Your task to perform on an android device: Clear the shopping cart on newegg.com. Add "dell xps" to the cart on newegg.com Image 0: 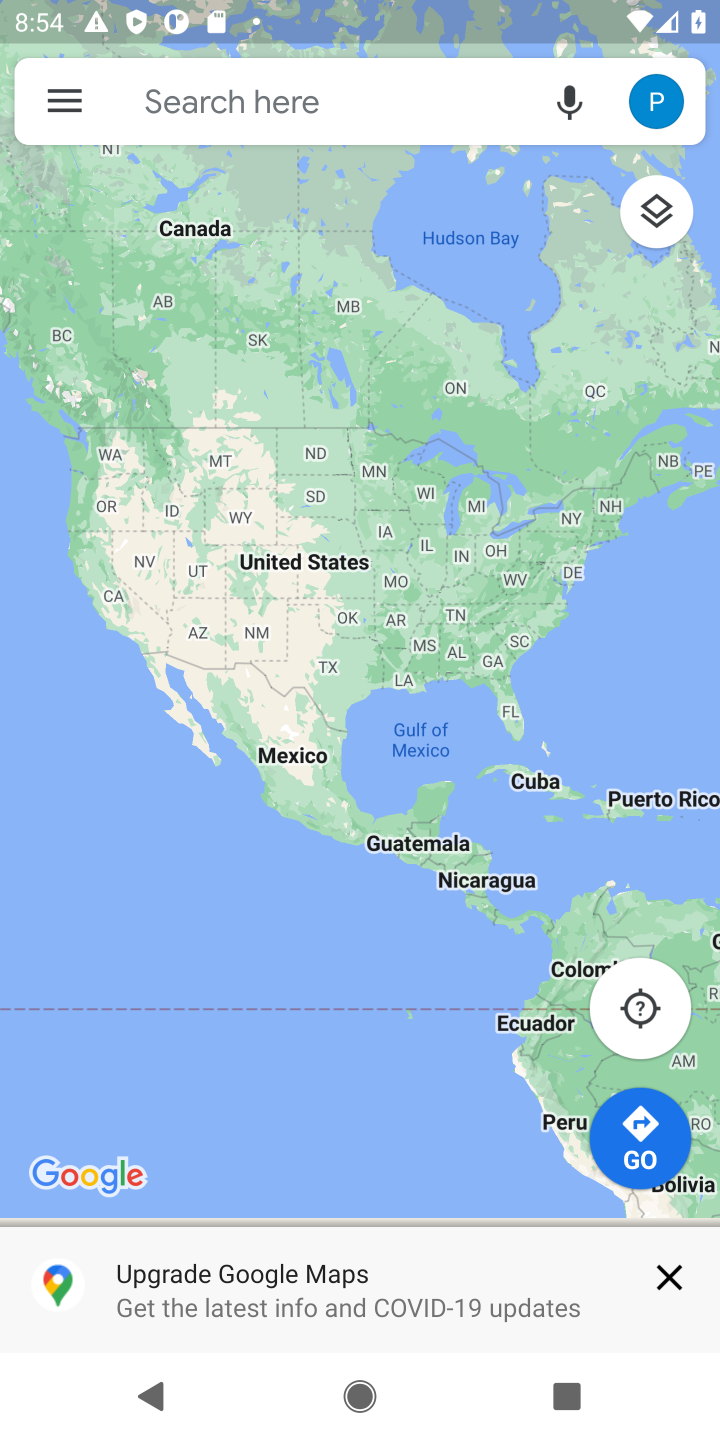
Step 0: press home button
Your task to perform on an android device: Clear the shopping cart on newegg.com. Add "dell xps" to the cart on newegg.com Image 1: 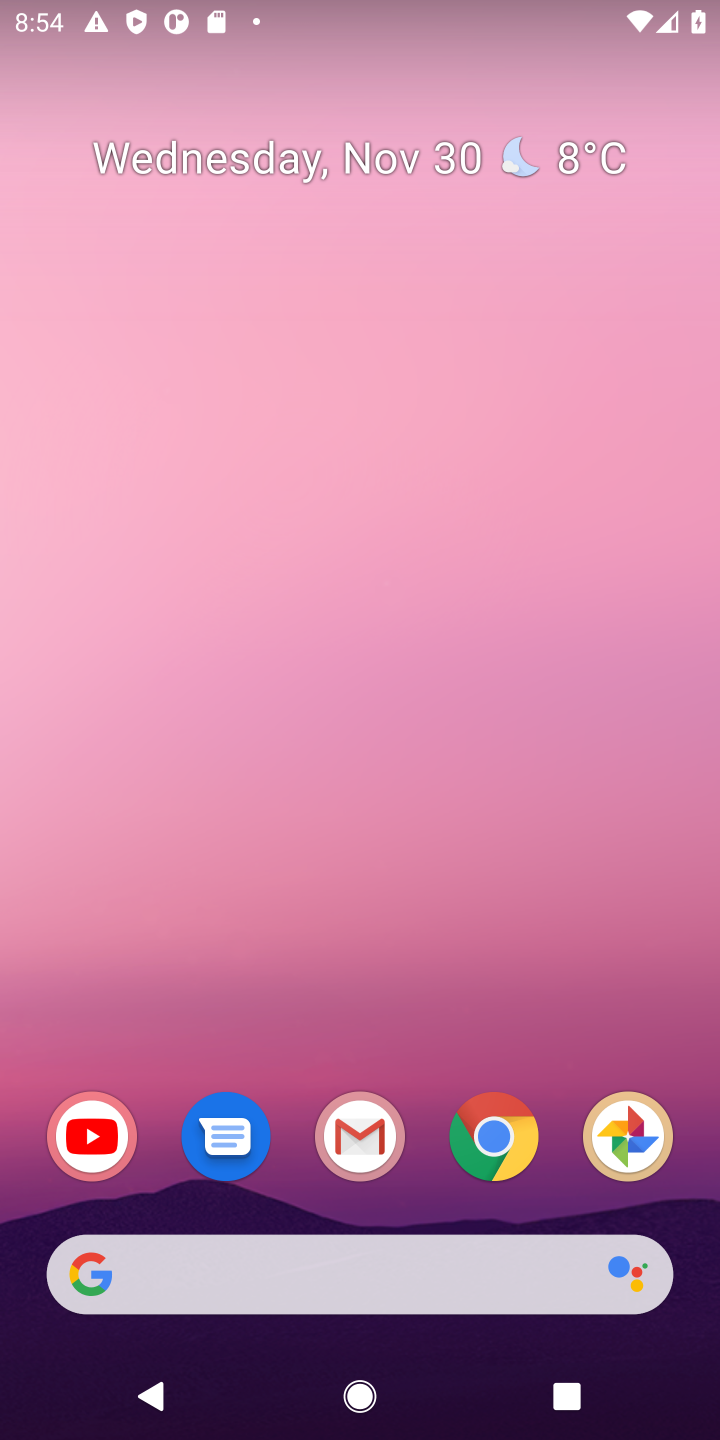
Step 1: click (494, 1133)
Your task to perform on an android device: Clear the shopping cart on newegg.com. Add "dell xps" to the cart on newegg.com Image 2: 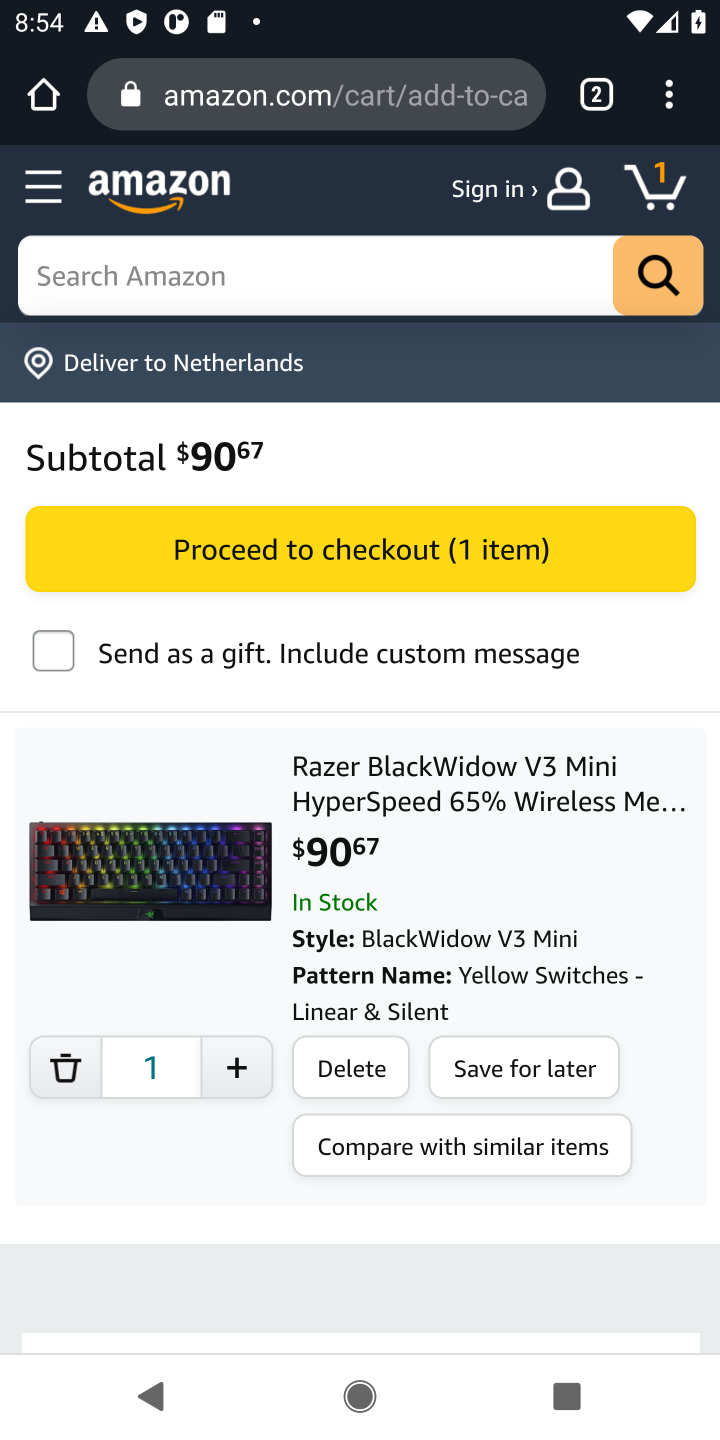
Step 2: click (307, 106)
Your task to perform on an android device: Clear the shopping cart on newegg.com. Add "dell xps" to the cart on newegg.com Image 3: 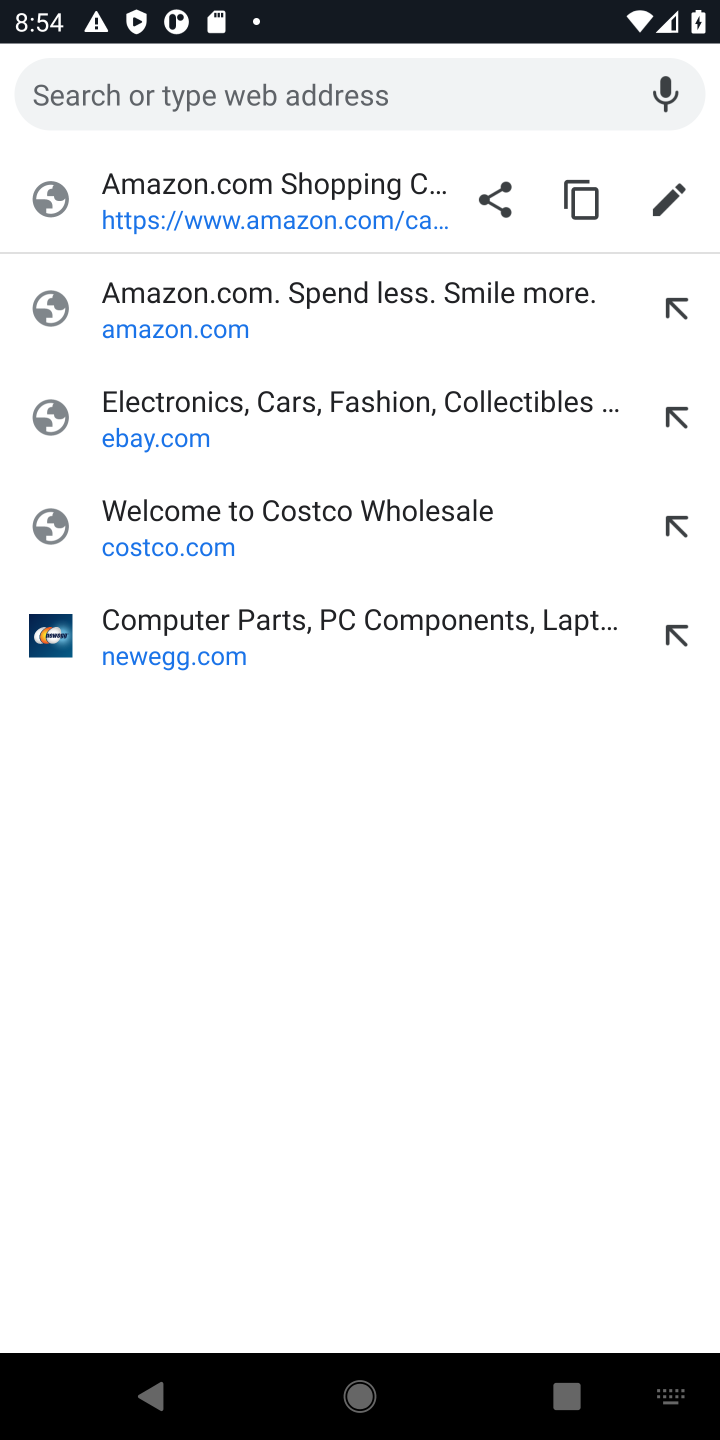
Step 3: click (150, 654)
Your task to perform on an android device: Clear the shopping cart on newegg.com. Add "dell xps" to the cart on newegg.com Image 4: 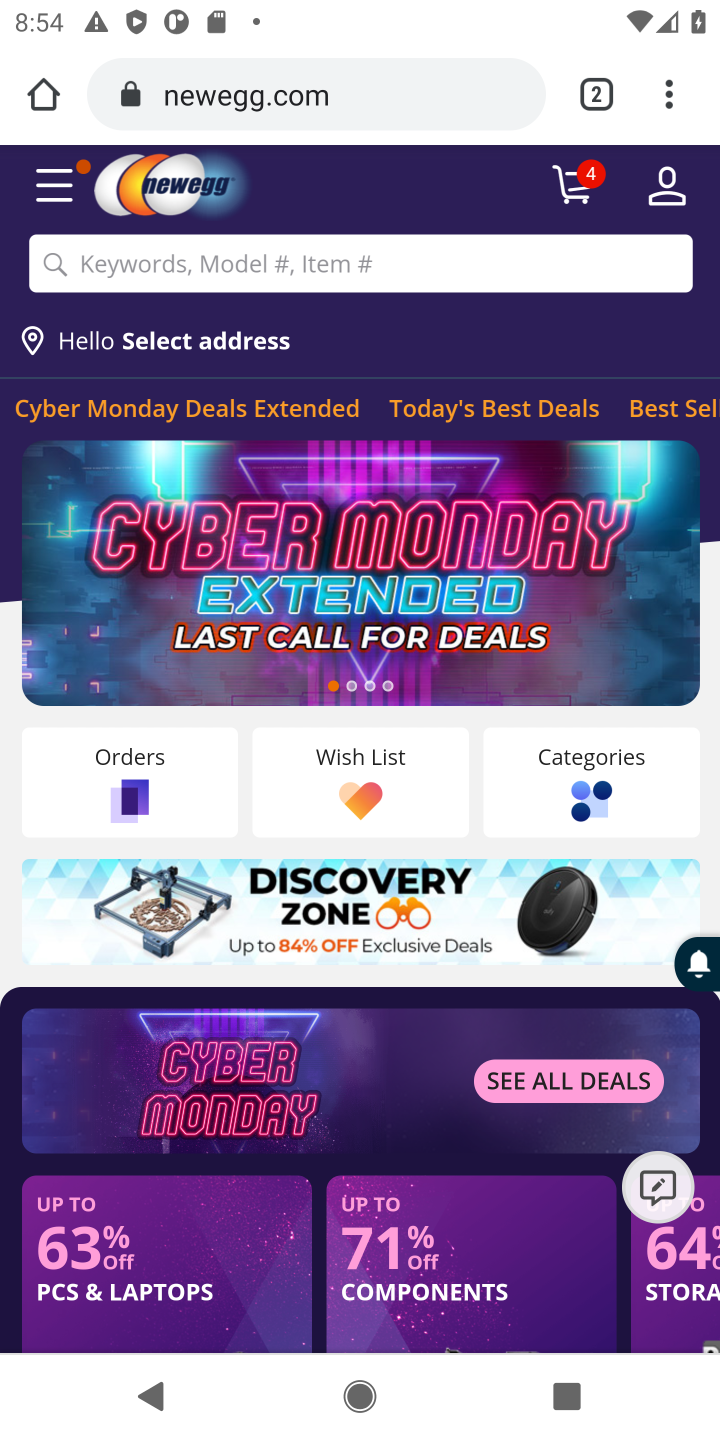
Step 4: click (572, 191)
Your task to perform on an android device: Clear the shopping cart on newegg.com. Add "dell xps" to the cart on newegg.com Image 5: 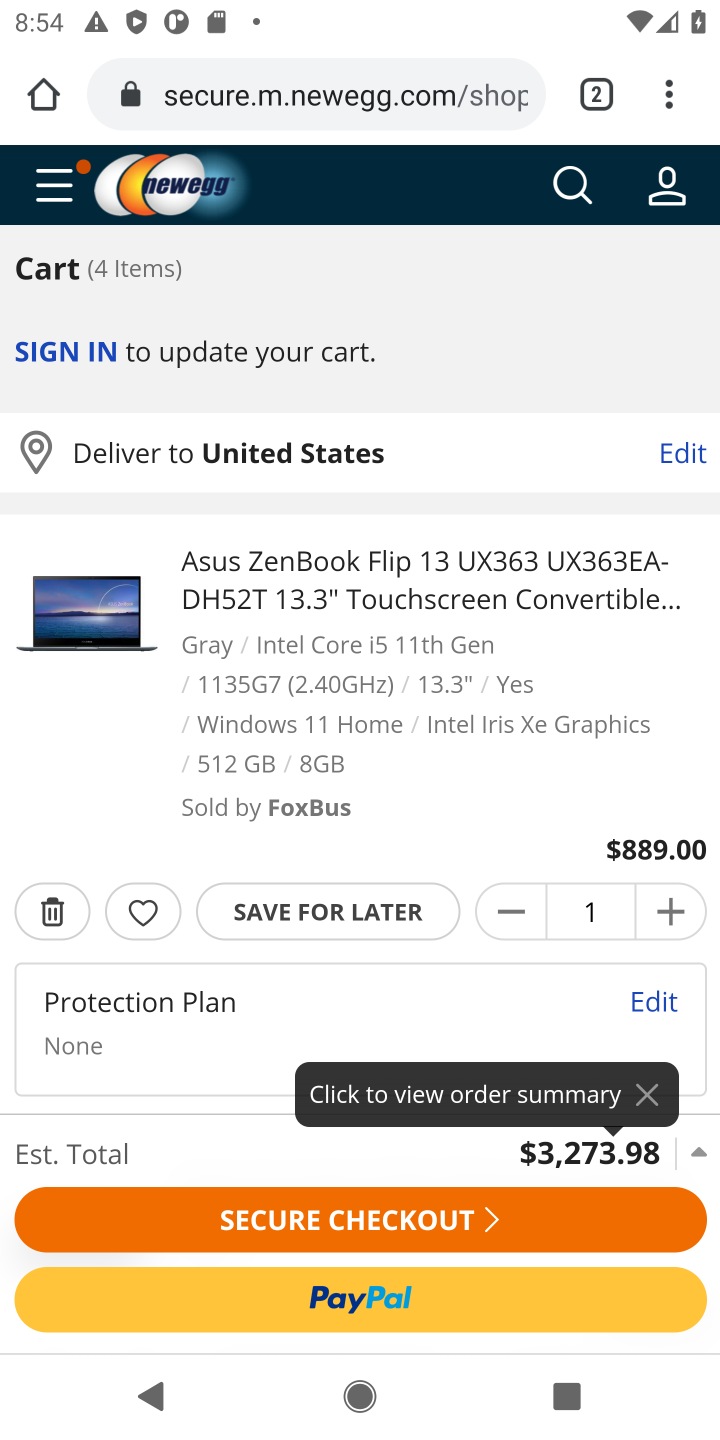
Step 5: click (56, 916)
Your task to perform on an android device: Clear the shopping cart on newegg.com. Add "dell xps" to the cart on newegg.com Image 6: 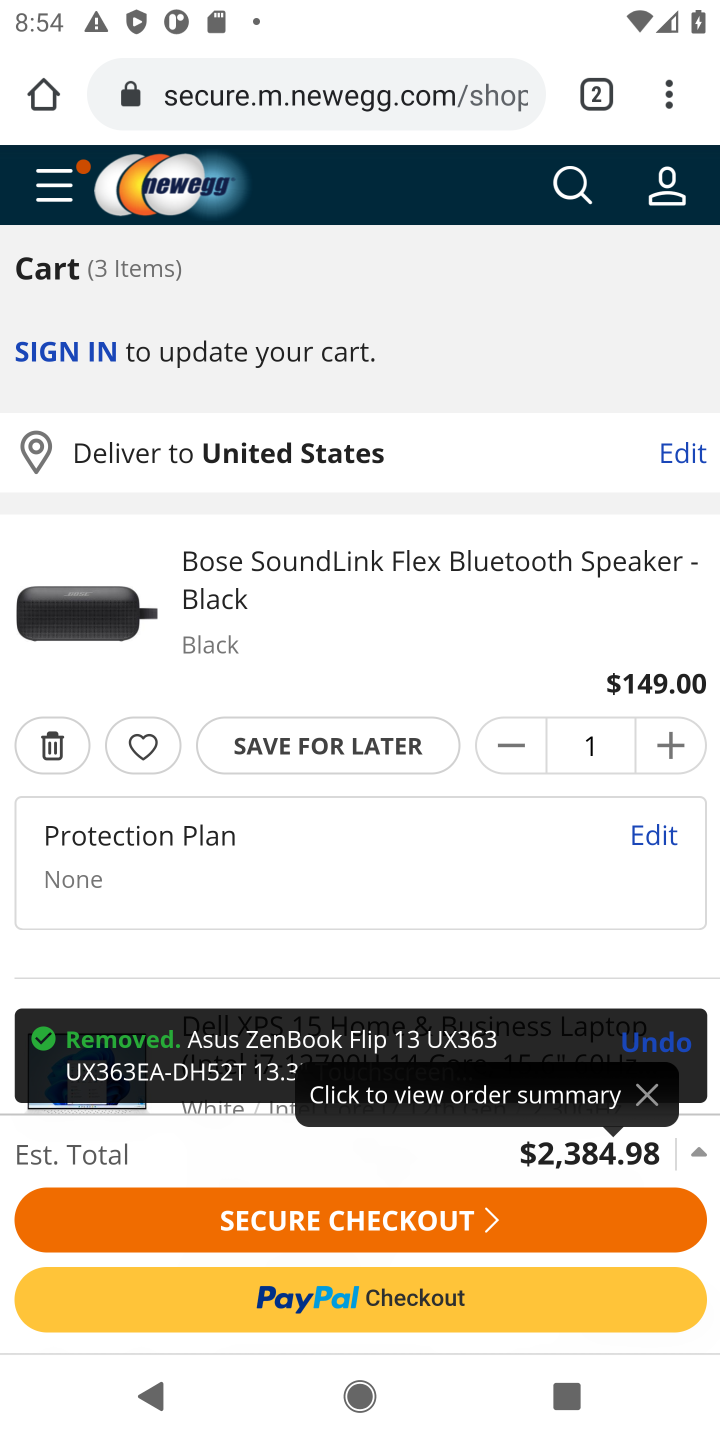
Step 6: click (64, 750)
Your task to perform on an android device: Clear the shopping cart on newegg.com. Add "dell xps" to the cart on newegg.com Image 7: 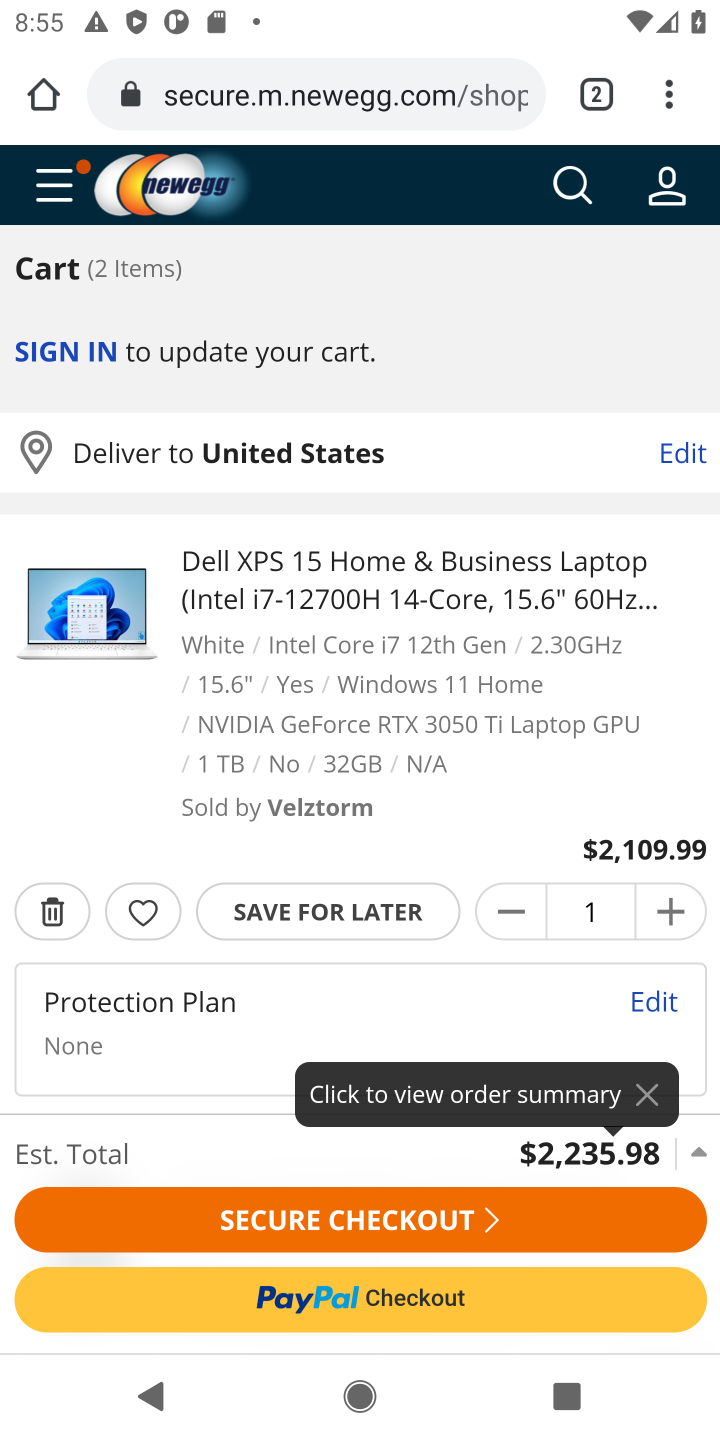
Step 7: click (49, 923)
Your task to perform on an android device: Clear the shopping cart on newegg.com. Add "dell xps" to the cart on newegg.com Image 8: 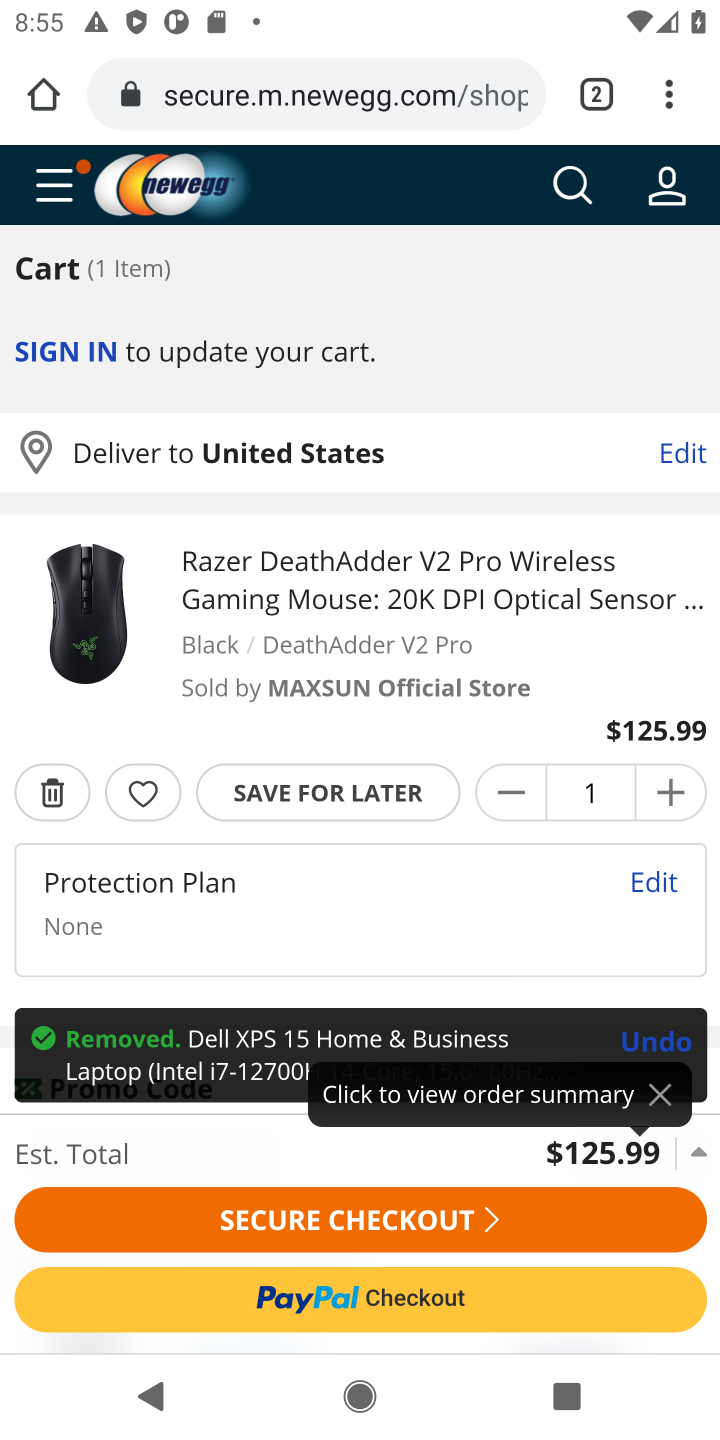
Step 8: click (50, 802)
Your task to perform on an android device: Clear the shopping cart on newegg.com. Add "dell xps" to the cart on newegg.com Image 9: 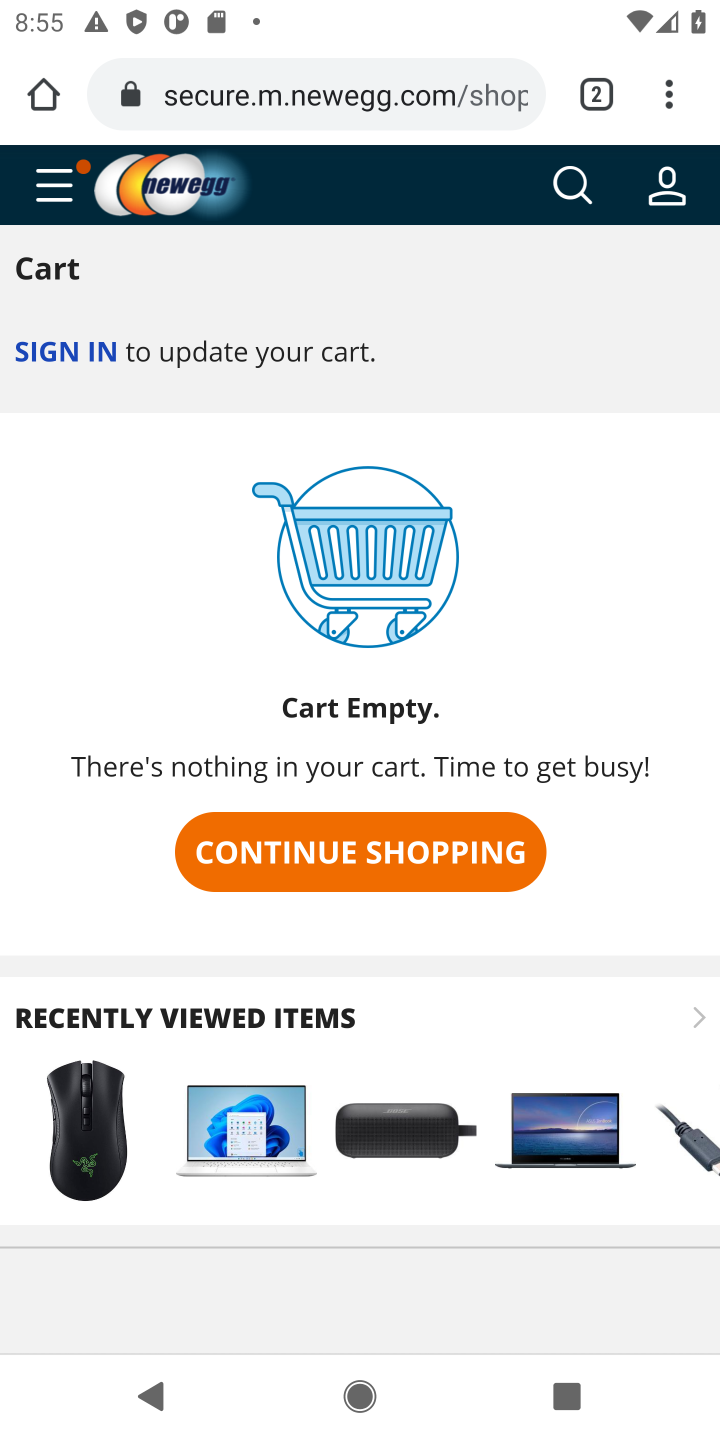
Step 9: click (579, 183)
Your task to perform on an android device: Clear the shopping cart on newegg.com. Add "dell xps" to the cart on newegg.com Image 10: 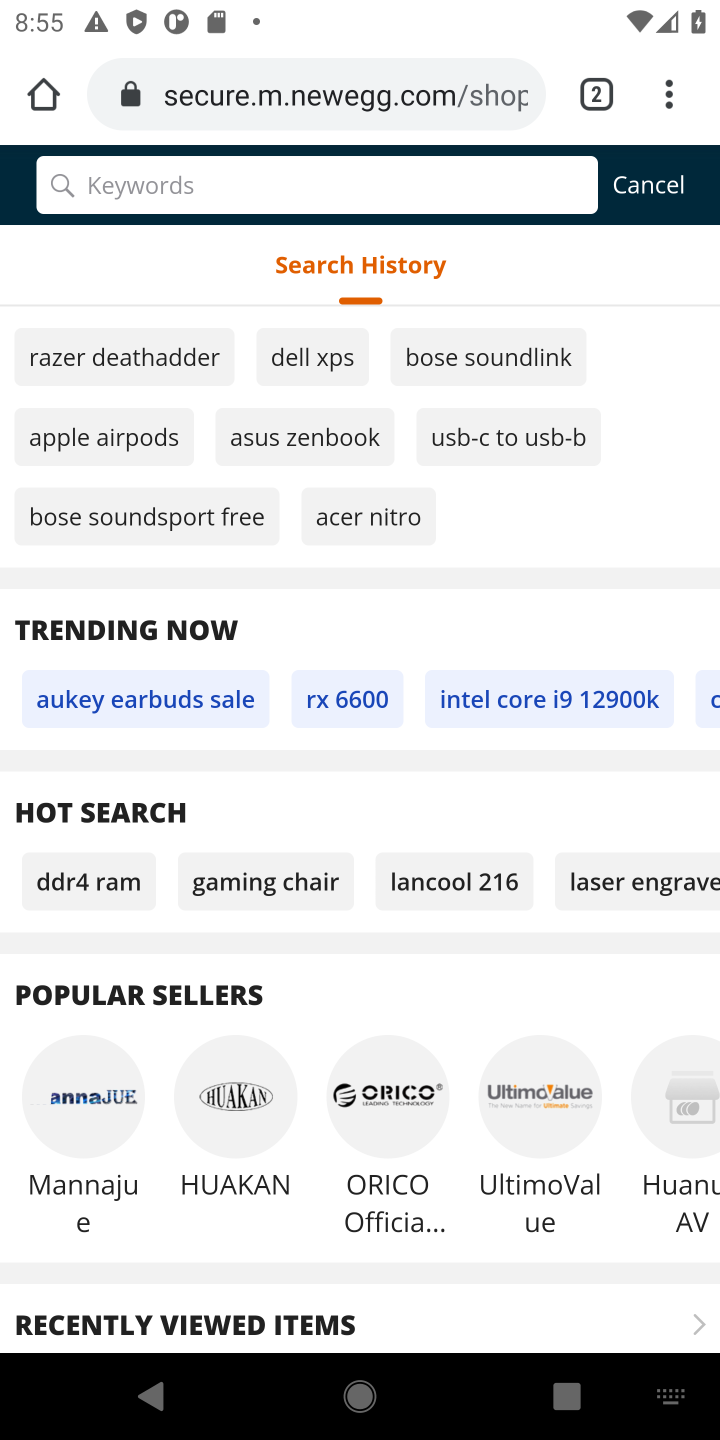
Step 10: type "dell xps"
Your task to perform on an android device: Clear the shopping cart on newegg.com. Add "dell xps" to the cart on newegg.com Image 11: 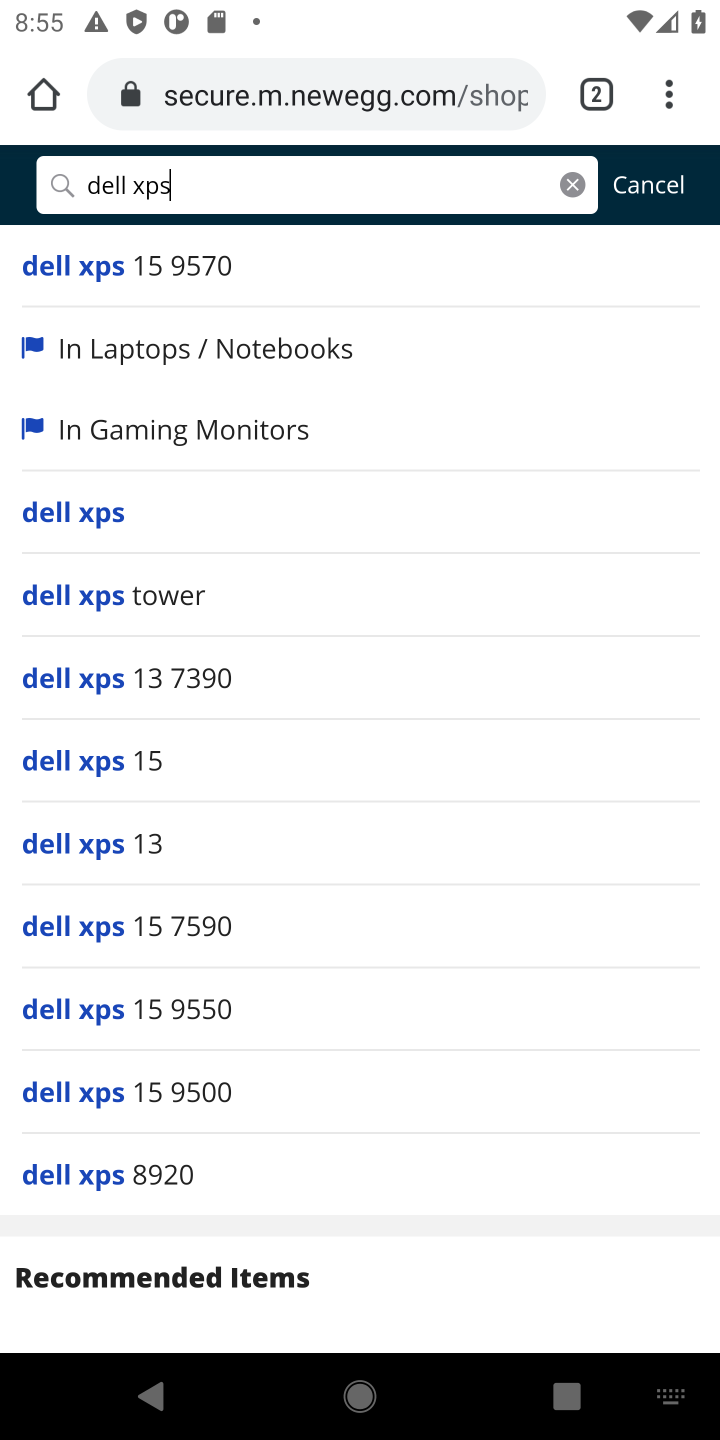
Step 11: click (85, 527)
Your task to perform on an android device: Clear the shopping cart on newegg.com. Add "dell xps" to the cart on newegg.com Image 12: 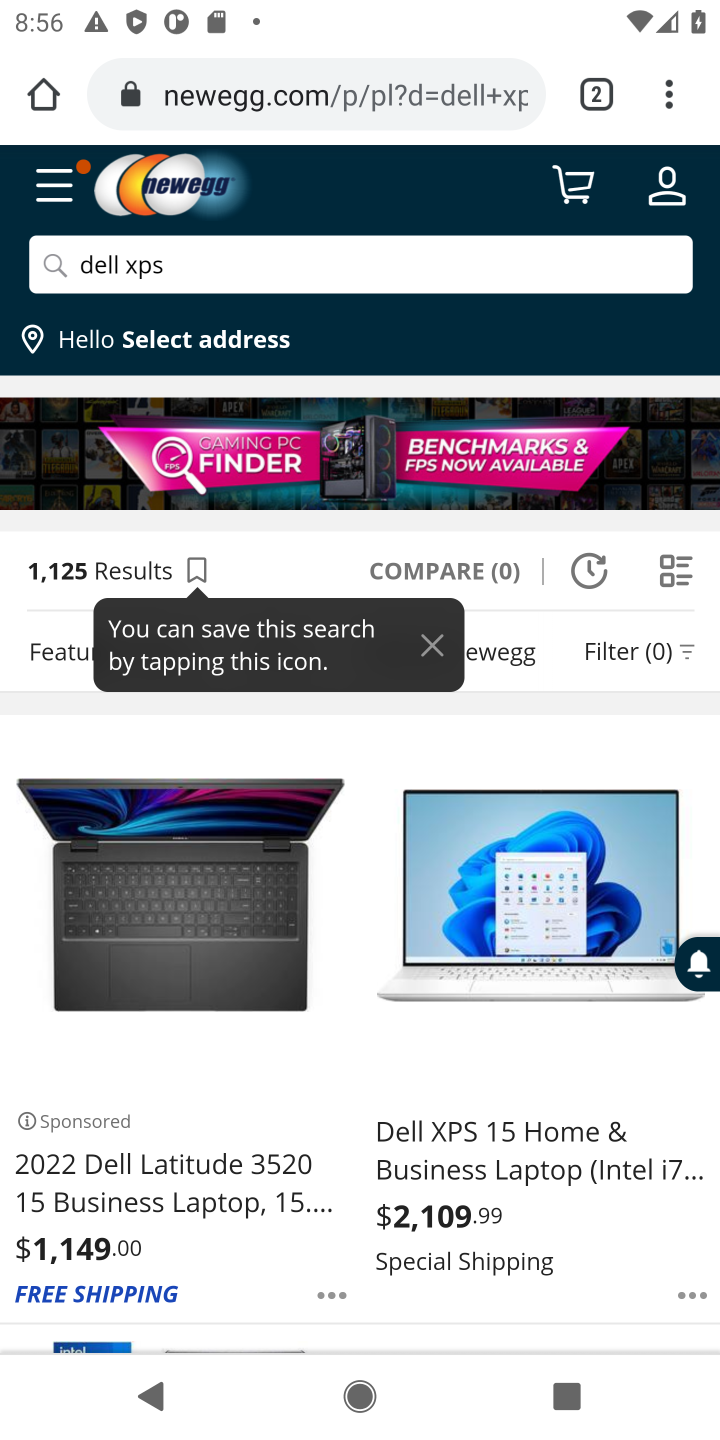
Step 12: click (445, 1158)
Your task to perform on an android device: Clear the shopping cart on newegg.com. Add "dell xps" to the cart on newegg.com Image 13: 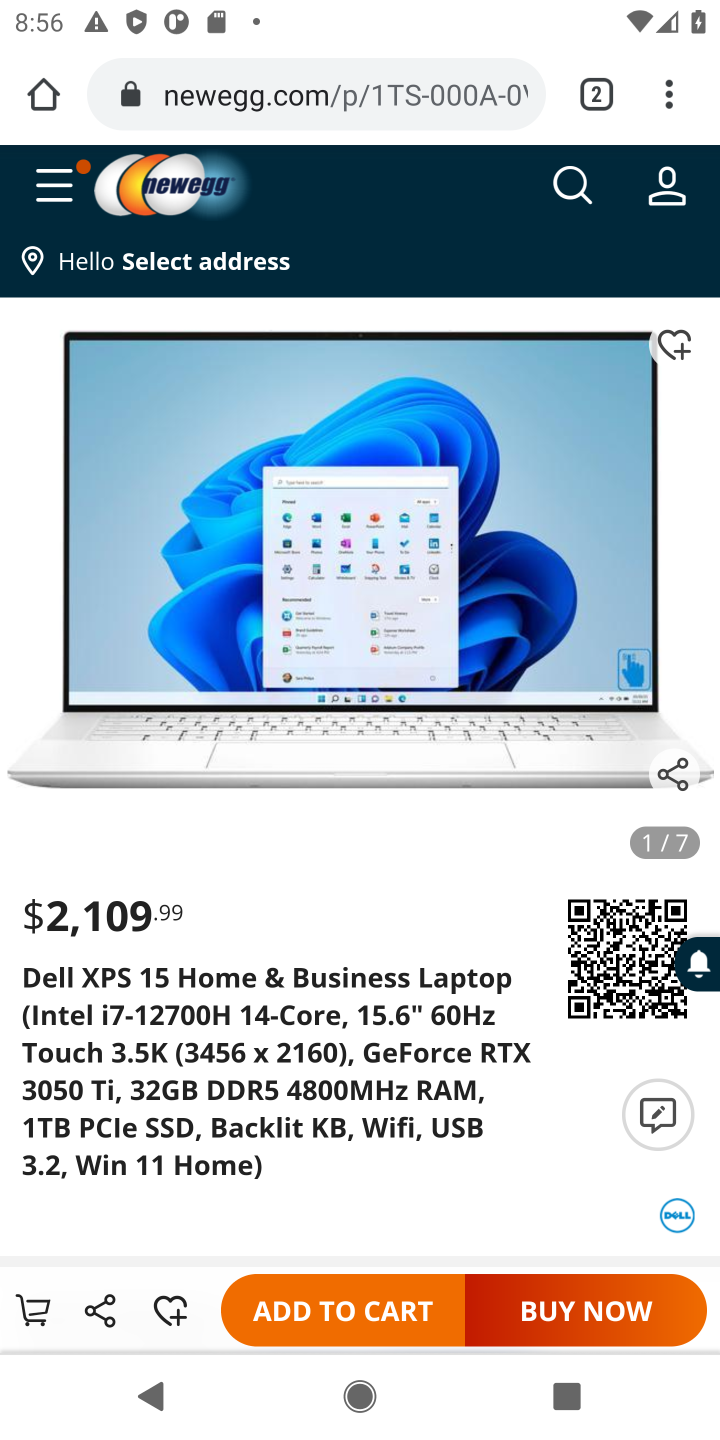
Step 13: click (329, 1319)
Your task to perform on an android device: Clear the shopping cart on newegg.com. Add "dell xps" to the cart on newegg.com Image 14: 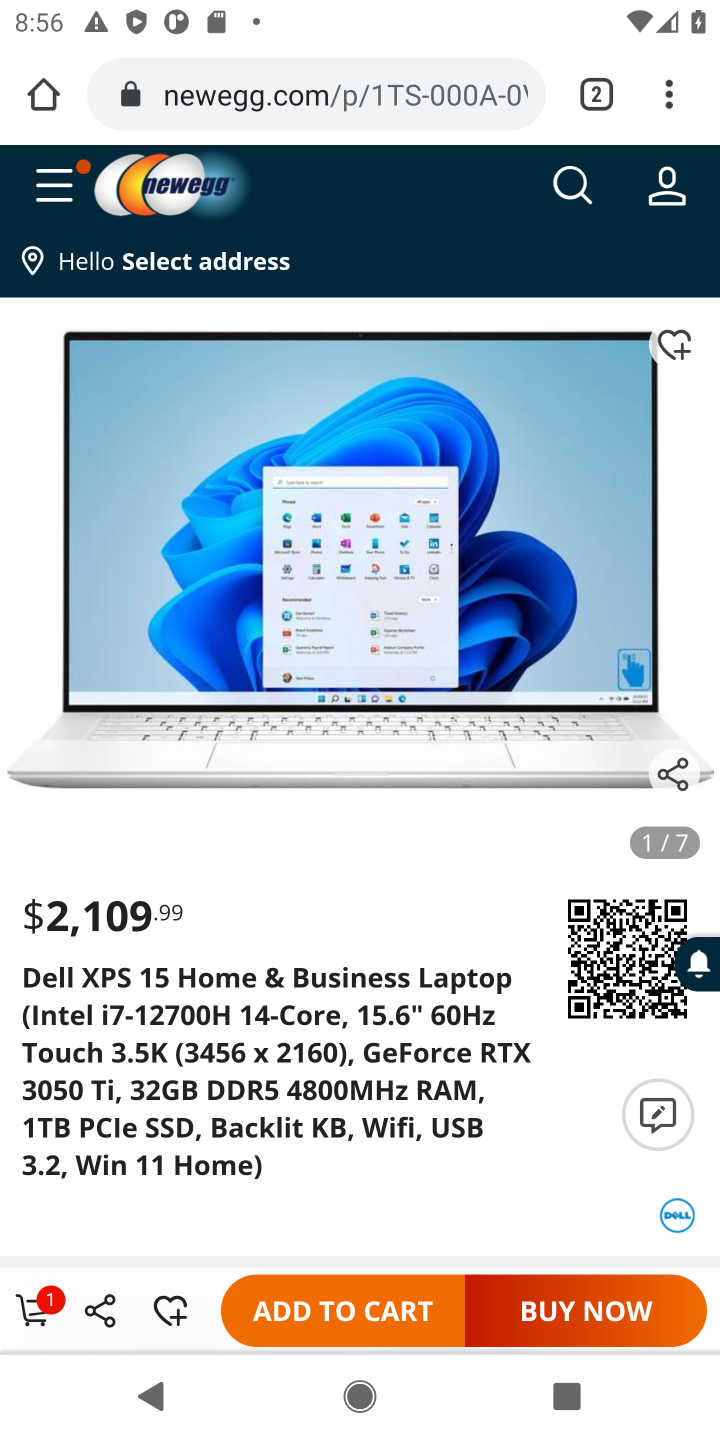
Step 14: task complete